Your task to perform on an android device: search for starred emails in the gmail app Image 0: 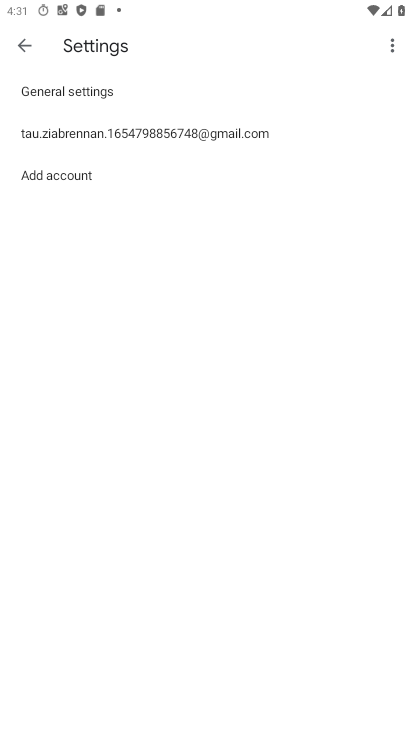
Step 0: press home button
Your task to perform on an android device: search for starred emails in the gmail app Image 1: 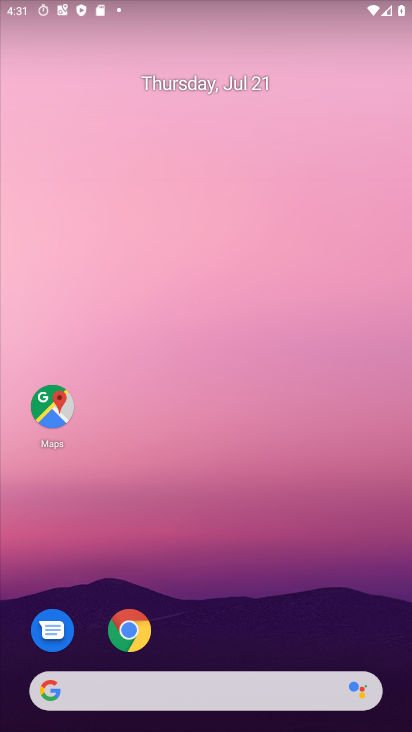
Step 1: drag from (231, 699) to (212, 313)
Your task to perform on an android device: search for starred emails in the gmail app Image 2: 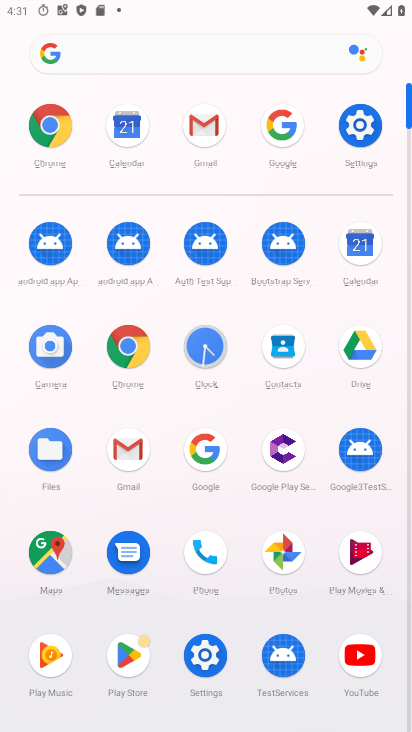
Step 2: click (203, 123)
Your task to perform on an android device: search for starred emails in the gmail app Image 3: 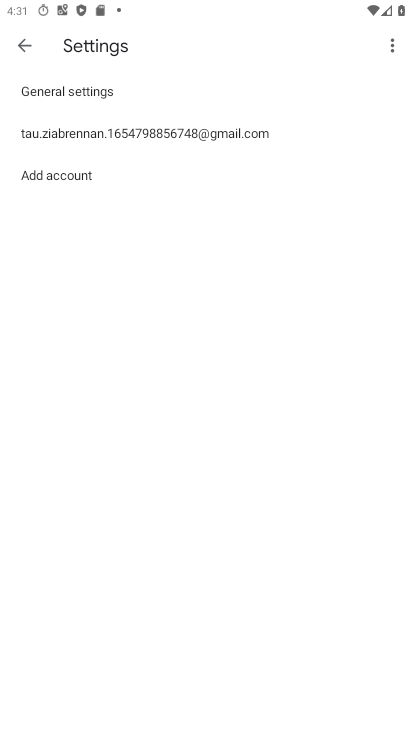
Step 3: press back button
Your task to perform on an android device: search for starred emails in the gmail app Image 4: 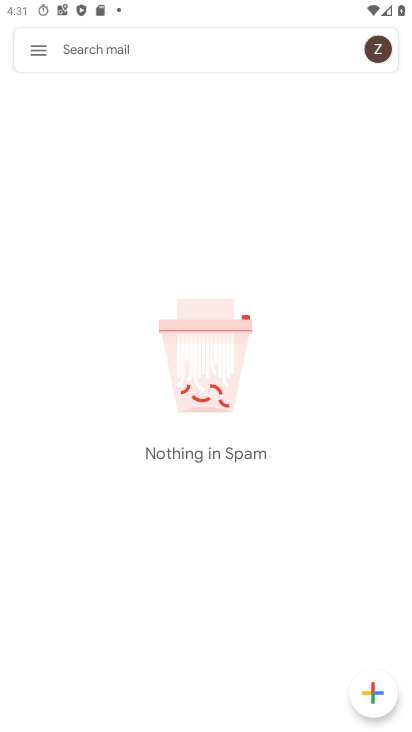
Step 4: click (41, 49)
Your task to perform on an android device: search for starred emails in the gmail app Image 5: 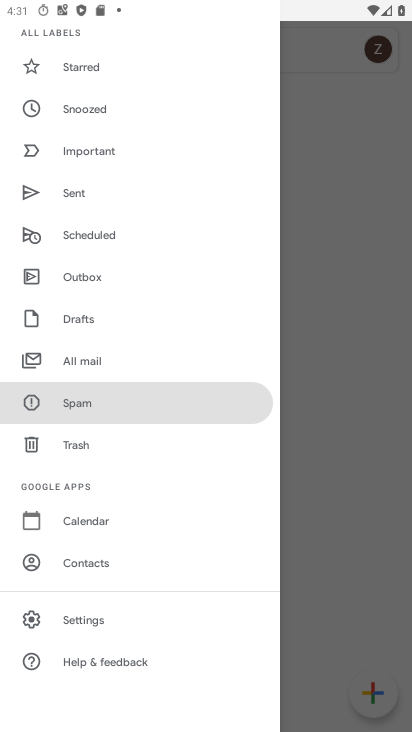
Step 5: click (68, 65)
Your task to perform on an android device: search for starred emails in the gmail app Image 6: 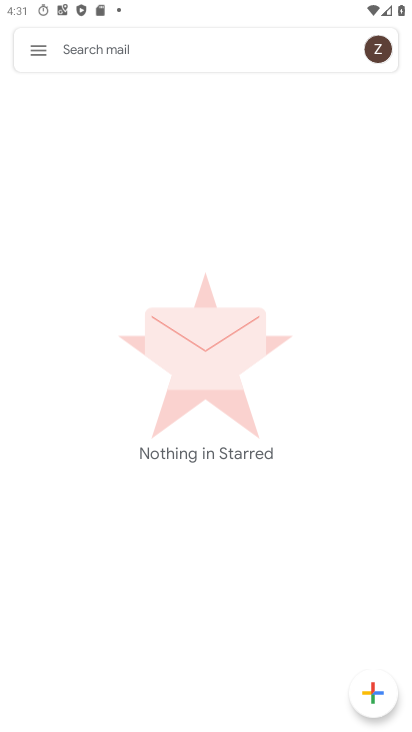
Step 6: click (42, 52)
Your task to perform on an android device: search for starred emails in the gmail app Image 7: 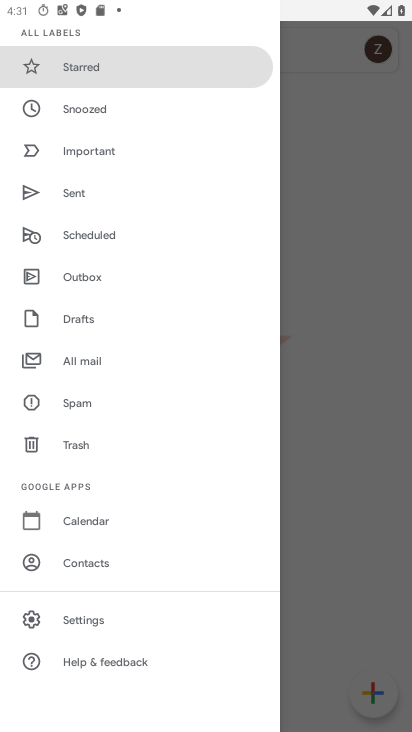
Step 7: click (81, 356)
Your task to perform on an android device: search for starred emails in the gmail app Image 8: 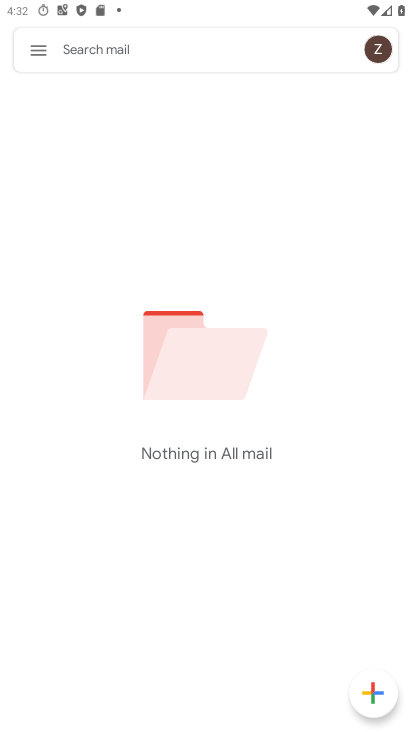
Step 8: click (36, 50)
Your task to perform on an android device: search for starred emails in the gmail app Image 9: 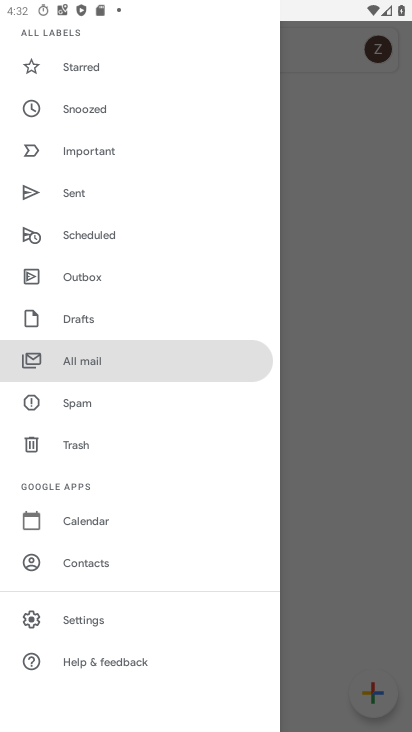
Step 9: click (83, 401)
Your task to perform on an android device: search for starred emails in the gmail app Image 10: 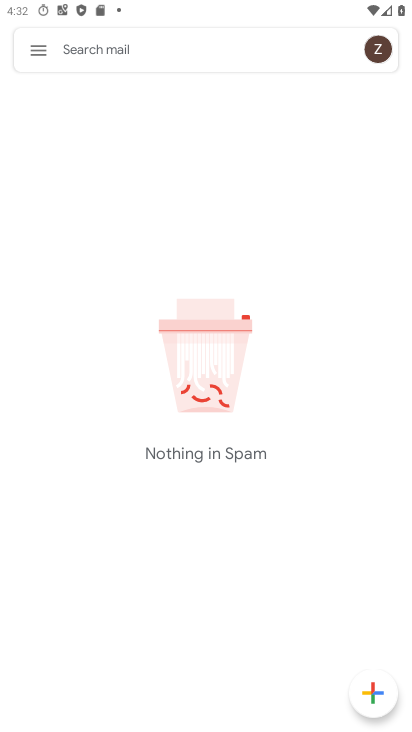
Step 10: click (39, 49)
Your task to perform on an android device: search for starred emails in the gmail app Image 11: 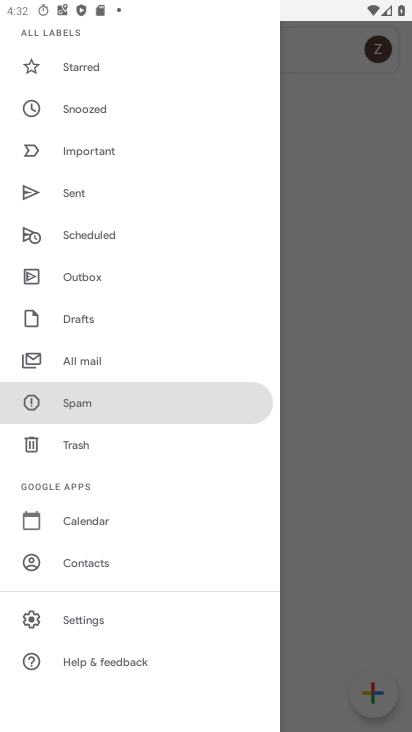
Step 11: click (84, 442)
Your task to perform on an android device: search for starred emails in the gmail app Image 12: 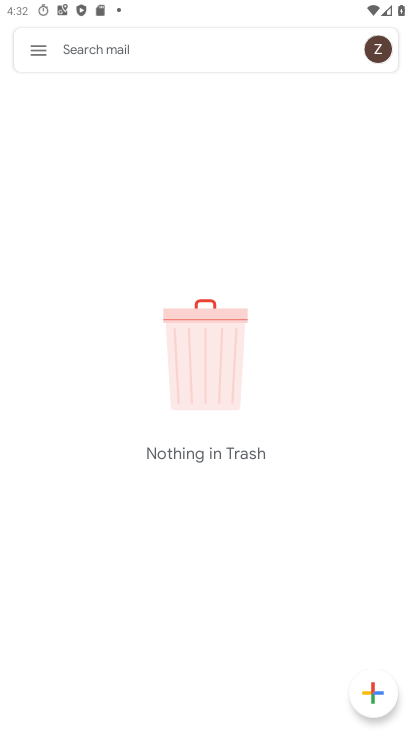
Step 12: click (42, 45)
Your task to perform on an android device: search for starred emails in the gmail app Image 13: 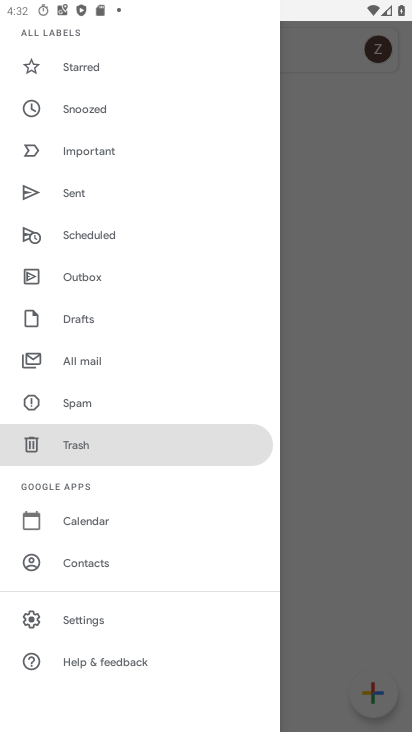
Step 13: click (85, 149)
Your task to perform on an android device: search for starred emails in the gmail app Image 14: 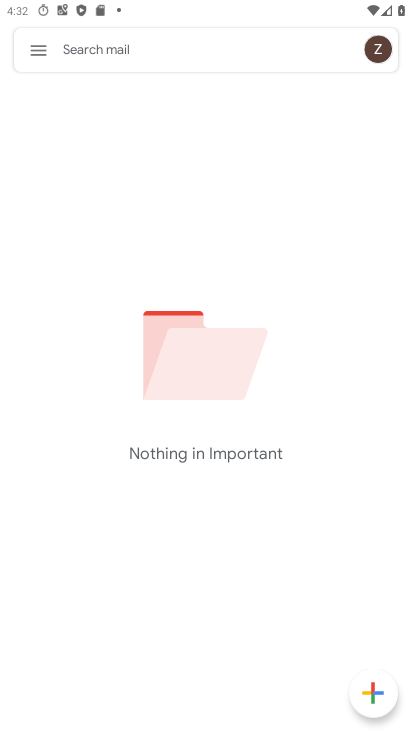
Step 14: task complete